Your task to perform on an android device: Open Wikipedia Image 0: 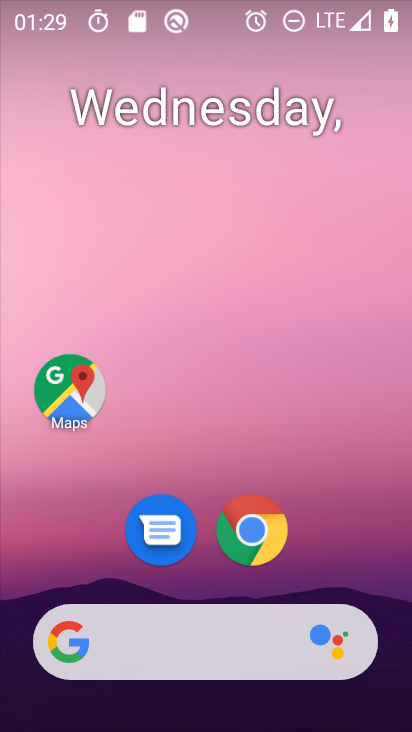
Step 0: drag from (212, 600) to (252, 20)
Your task to perform on an android device: Open Wikipedia Image 1: 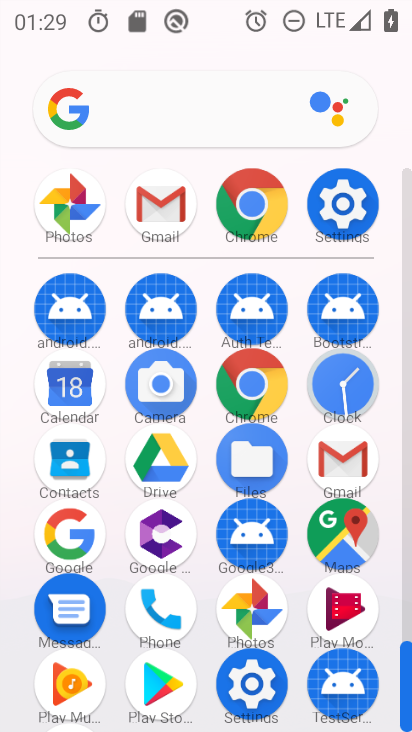
Step 1: click (250, 395)
Your task to perform on an android device: Open Wikipedia Image 2: 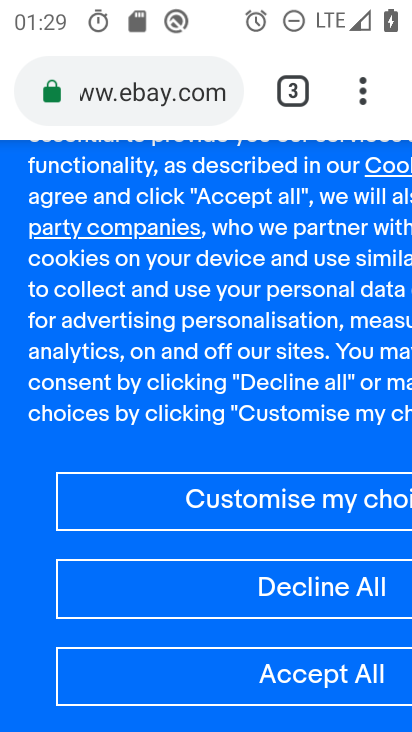
Step 2: drag from (359, 94) to (178, 171)
Your task to perform on an android device: Open Wikipedia Image 3: 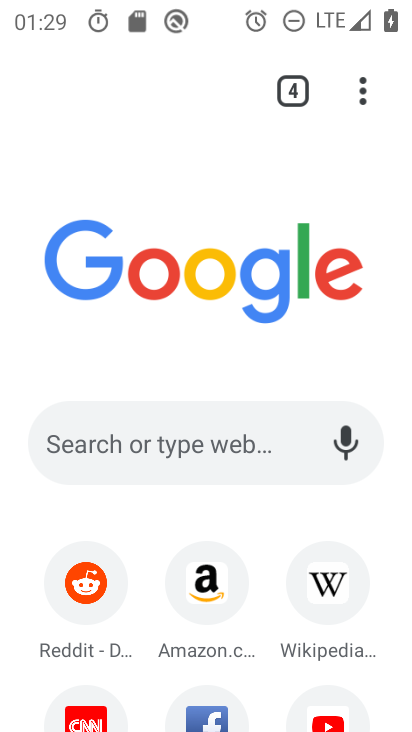
Step 3: click (317, 605)
Your task to perform on an android device: Open Wikipedia Image 4: 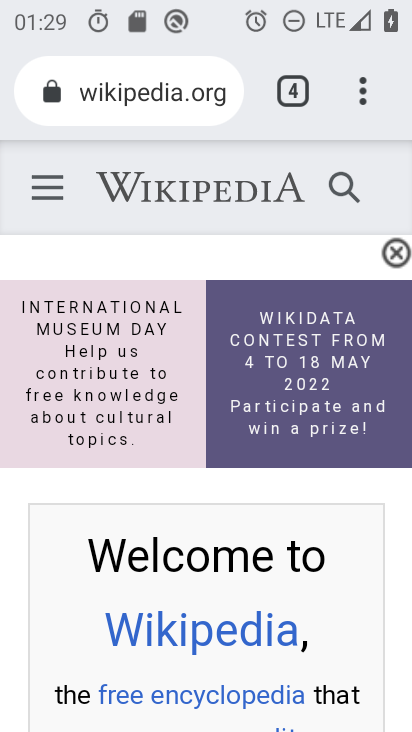
Step 4: task complete